Your task to perform on an android device: turn notification dots off Image 0: 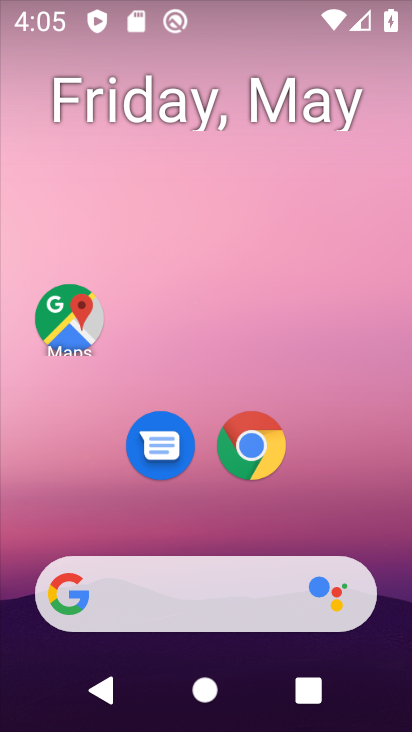
Step 0: drag from (240, 531) to (328, 15)
Your task to perform on an android device: turn notification dots off Image 1: 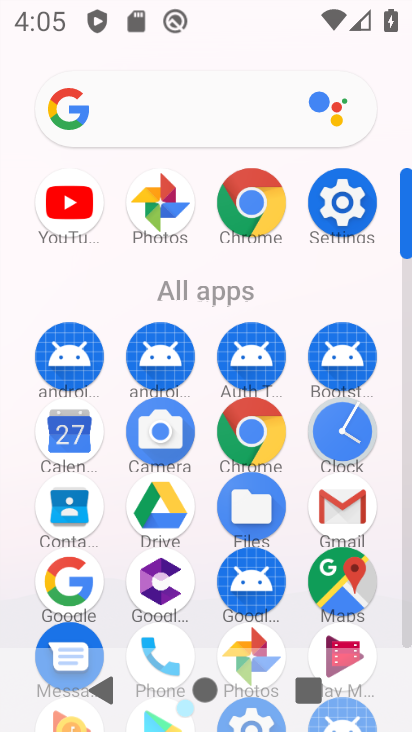
Step 1: click (343, 182)
Your task to perform on an android device: turn notification dots off Image 2: 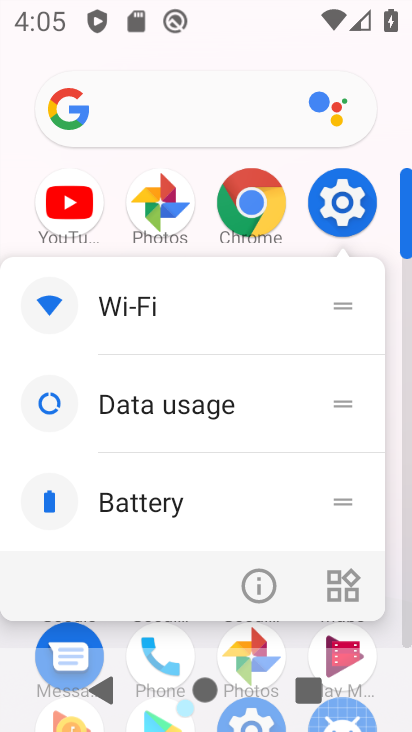
Step 2: click (331, 195)
Your task to perform on an android device: turn notification dots off Image 3: 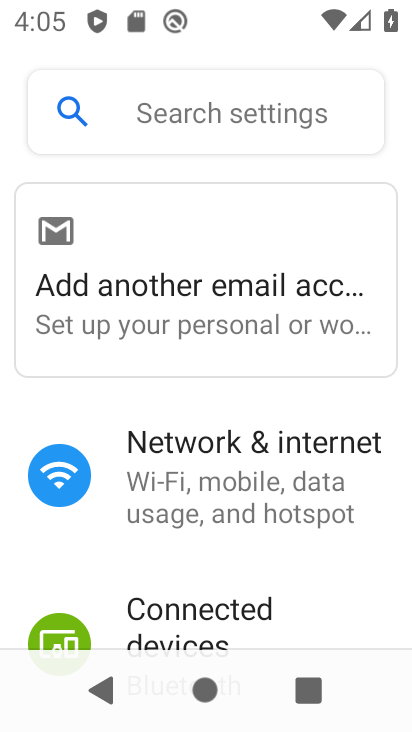
Step 3: drag from (219, 585) to (273, 148)
Your task to perform on an android device: turn notification dots off Image 4: 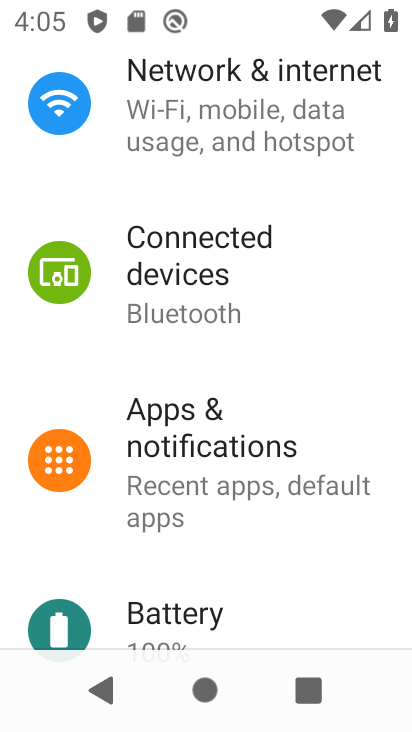
Step 4: click (242, 444)
Your task to perform on an android device: turn notification dots off Image 5: 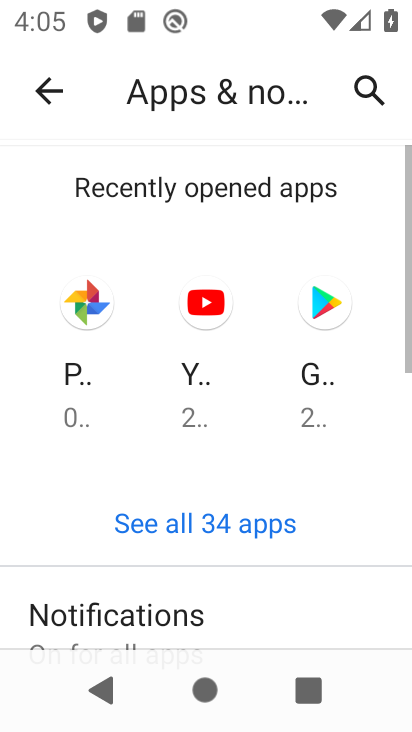
Step 5: drag from (139, 602) to (291, 6)
Your task to perform on an android device: turn notification dots off Image 6: 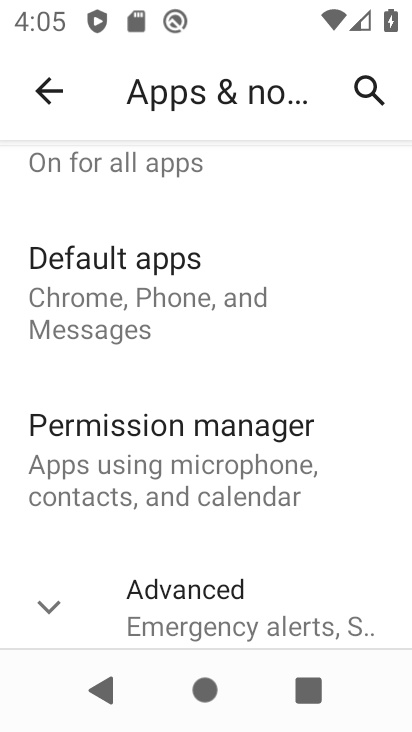
Step 6: click (158, 174)
Your task to perform on an android device: turn notification dots off Image 7: 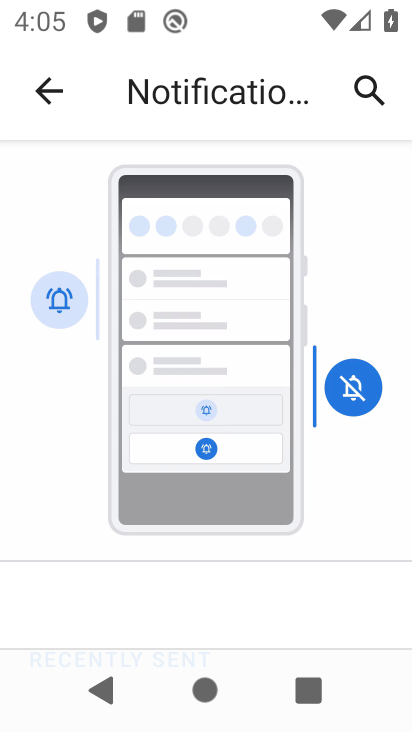
Step 7: drag from (203, 621) to (206, 114)
Your task to perform on an android device: turn notification dots off Image 8: 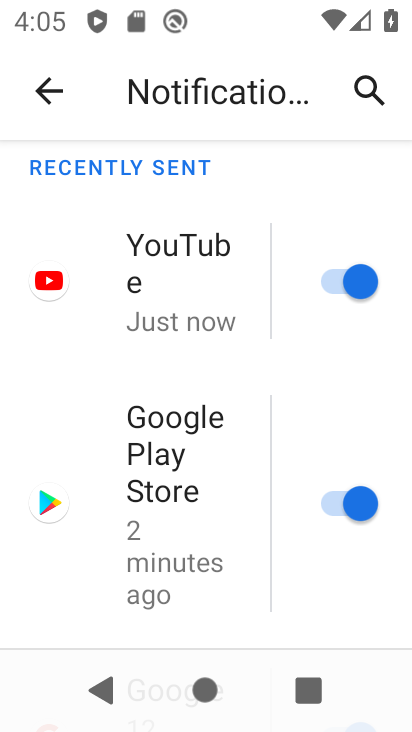
Step 8: drag from (150, 573) to (201, 30)
Your task to perform on an android device: turn notification dots off Image 9: 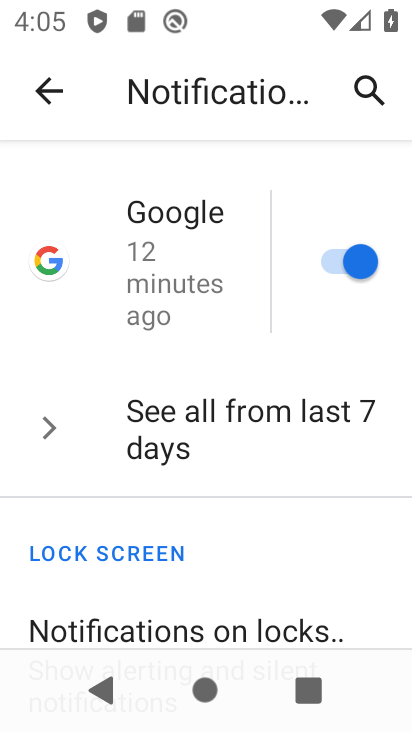
Step 9: drag from (195, 526) to (248, 90)
Your task to perform on an android device: turn notification dots off Image 10: 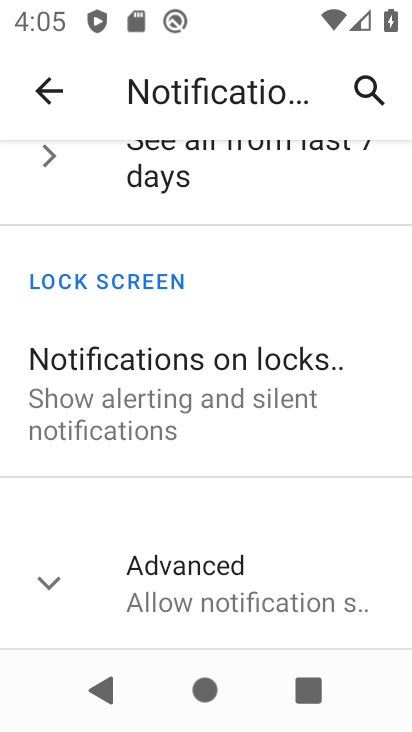
Step 10: click (200, 585)
Your task to perform on an android device: turn notification dots off Image 11: 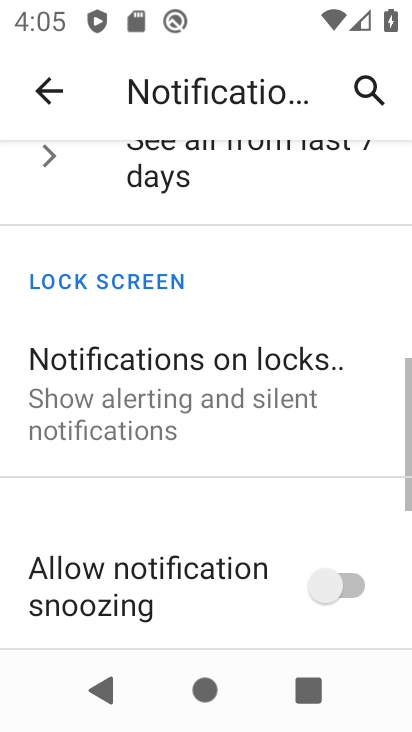
Step 11: drag from (220, 549) to (283, 38)
Your task to perform on an android device: turn notification dots off Image 12: 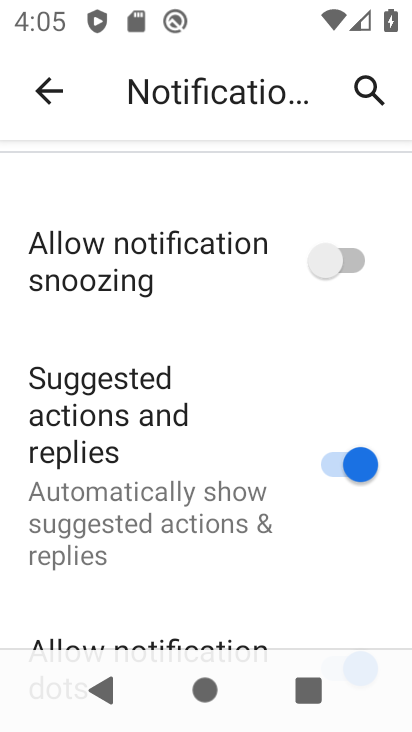
Step 12: drag from (275, 563) to (288, 148)
Your task to perform on an android device: turn notification dots off Image 13: 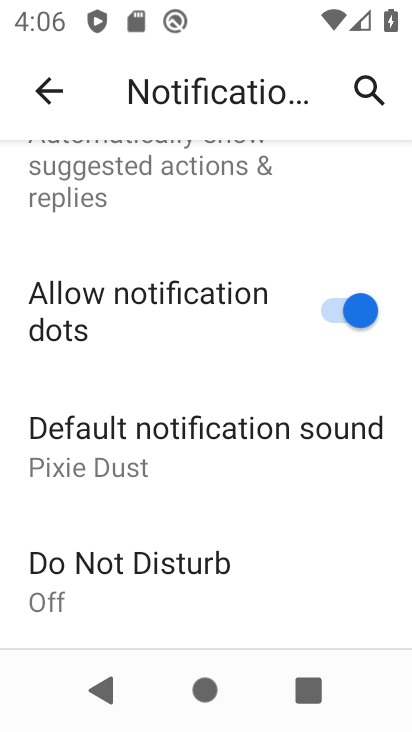
Step 13: click (365, 288)
Your task to perform on an android device: turn notification dots off Image 14: 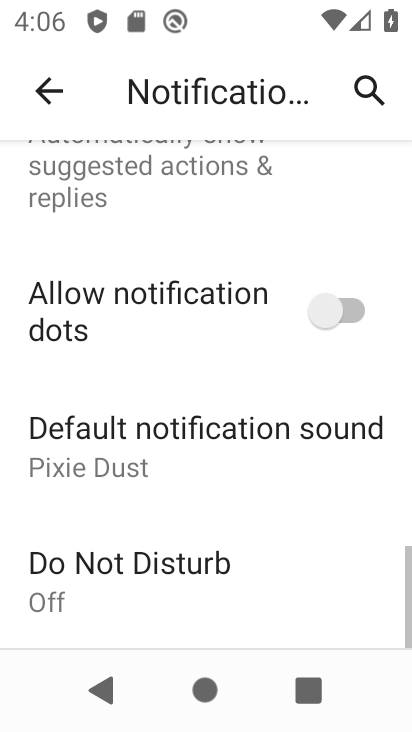
Step 14: task complete